Your task to perform on an android device: Open Maps and search for coffee Image 0: 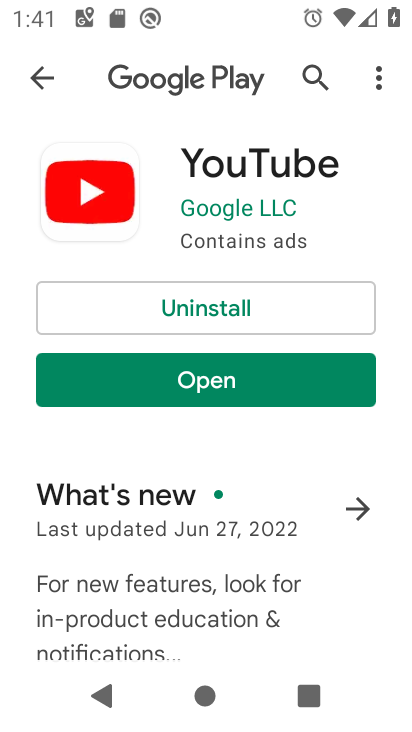
Step 0: drag from (359, 497) to (347, 429)
Your task to perform on an android device: Open Maps and search for coffee Image 1: 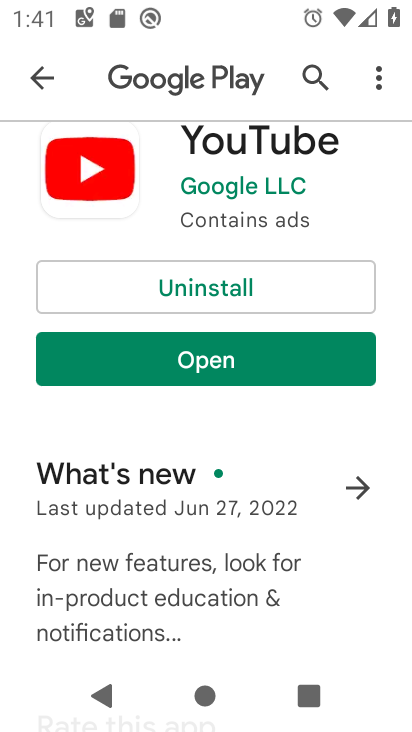
Step 1: press home button
Your task to perform on an android device: Open Maps and search for coffee Image 2: 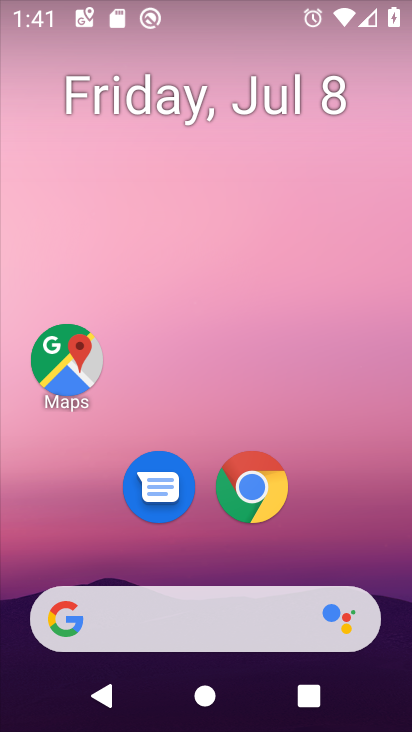
Step 2: drag from (351, 501) to (355, 147)
Your task to perform on an android device: Open Maps and search for coffee Image 3: 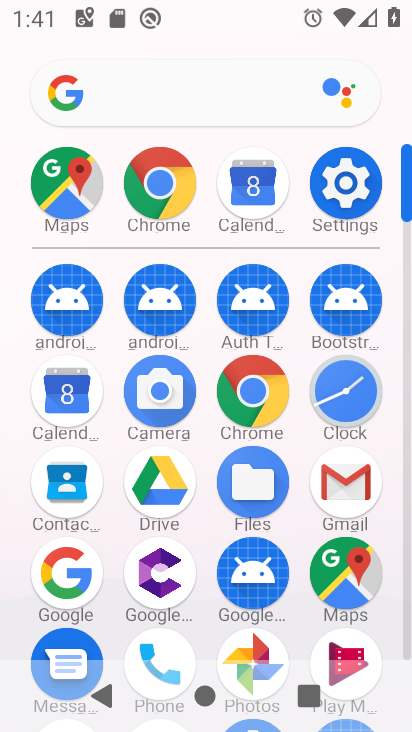
Step 3: click (353, 573)
Your task to perform on an android device: Open Maps and search for coffee Image 4: 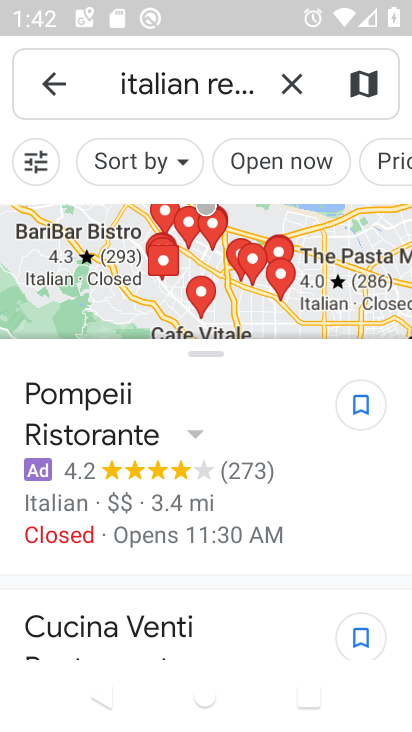
Step 4: press back button
Your task to perform on an android device: Open Maps and search for coffee Image 5: 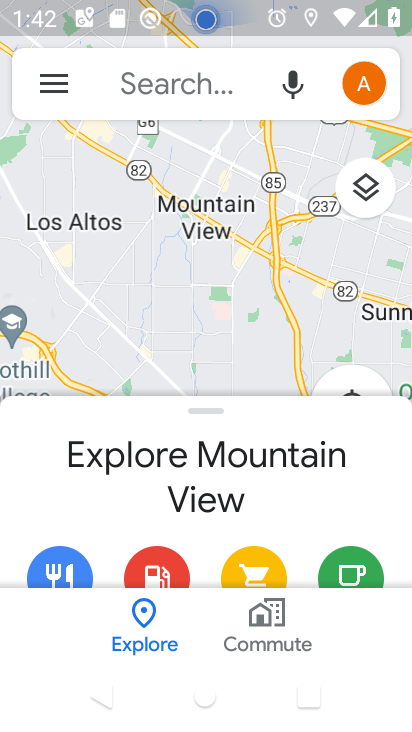
Step 5: click (171, 81)
Your task to perform on an android device: Open Maps and search for coffee Image 6: 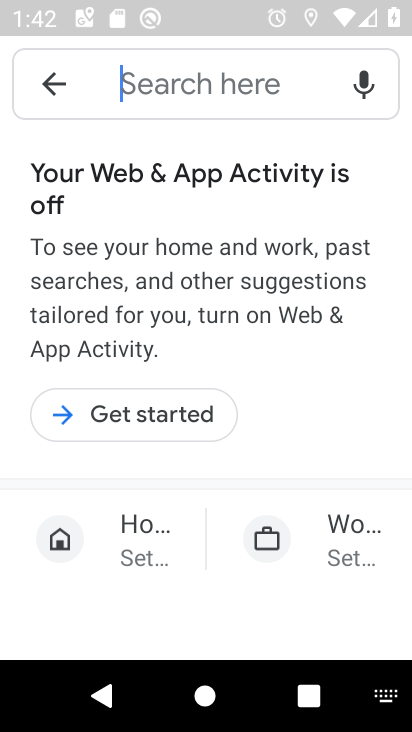
Step 6: type "coffee"
Your task to perform on an android device: Open Maps and search for coffee Image 7: 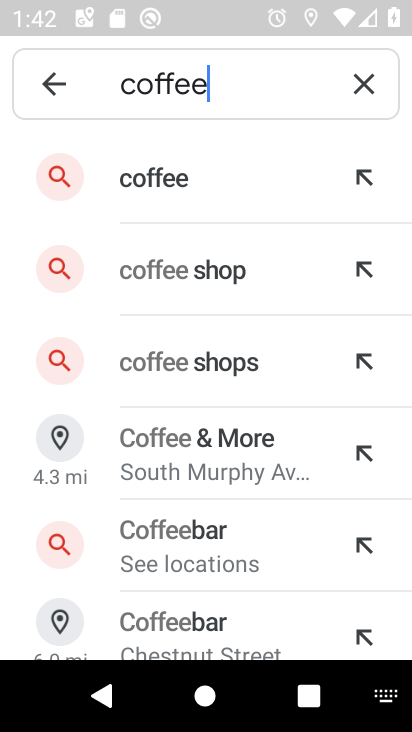
Step 7: click (257, 187)
Your task to perform on an android device: Open Maps and search for coffee Image 8: 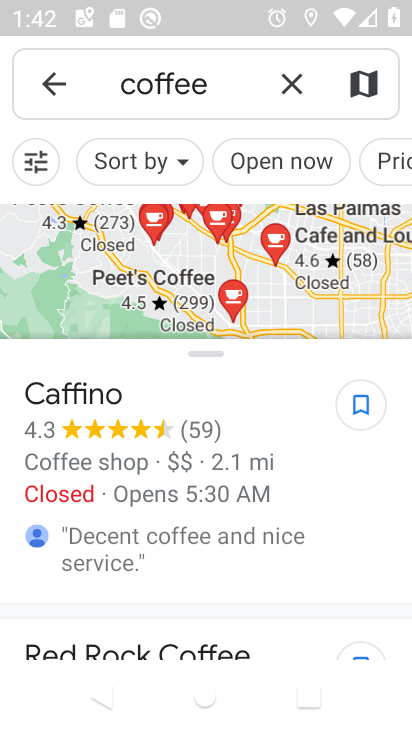
Step 8: task complete